Your task to perform on an android device: Open CNN.com Image 0: 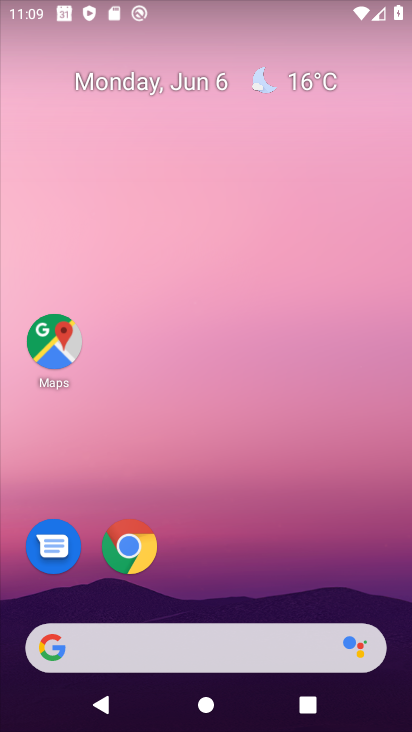
Step 0: click (123, 540)
Your task to perform on an android device: Open CNN.com Image 1: 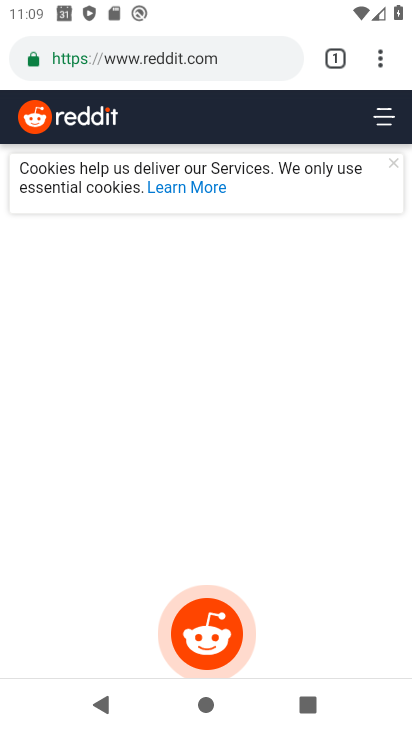
Step 1: click (206, 61)
Your task to perform on an android device: Open CNN.com Image 2: 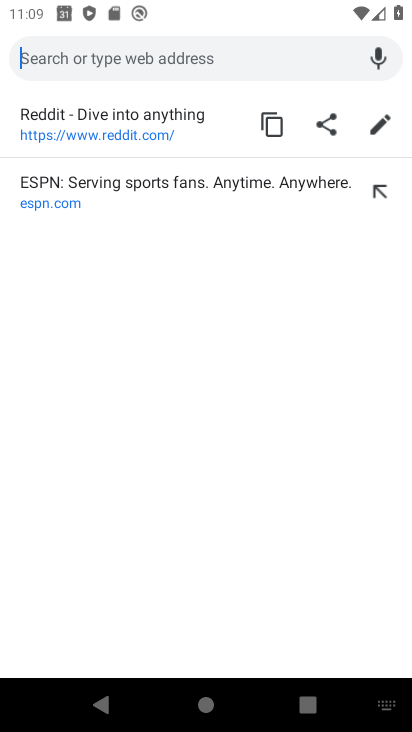
Step 2: type "cnn.co"
Your task to perform on an android device: Open CNN.com Image 3: 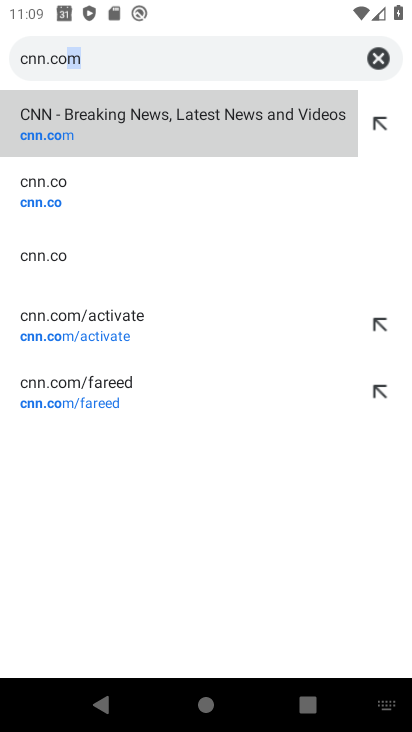
Step 3: click (67, 133)
Your task to perform on an android device: Open CNN.com Image 4: 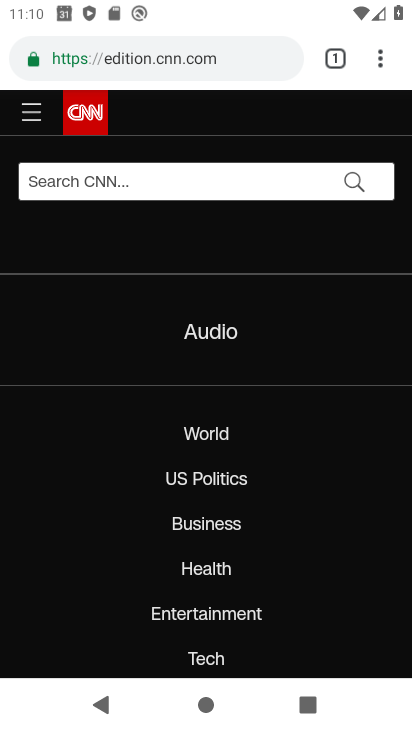
Step 4: task complete